Your task to perform on an android device: Go to location settings Image 0: 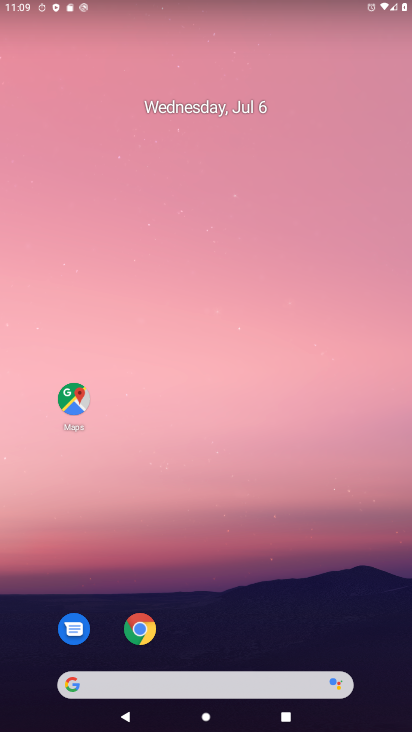
Step 0: drag from (230, 651) to (241, 111)
Your task to perform on an android device: Go to location settings Image 1: 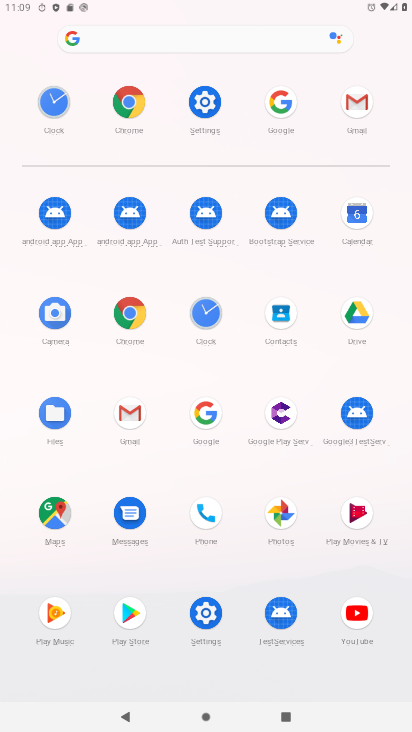
Step 1: click (212, 96)
Your task to perform on an android device: Go to location settings Image 2: 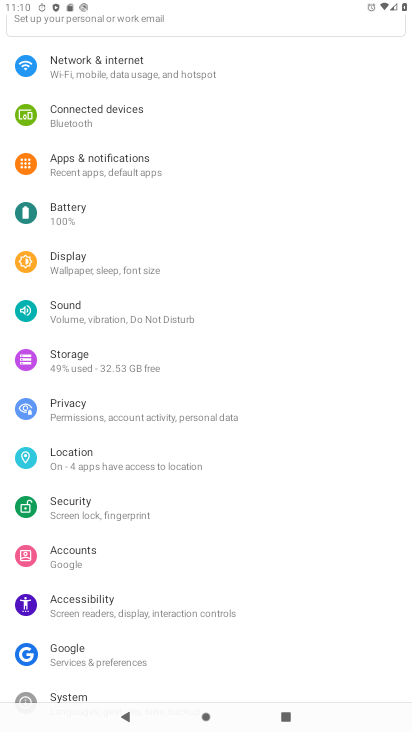
Step 2: click (95, 463)
Your task to perform on an android device: Go to location settings Image 3: 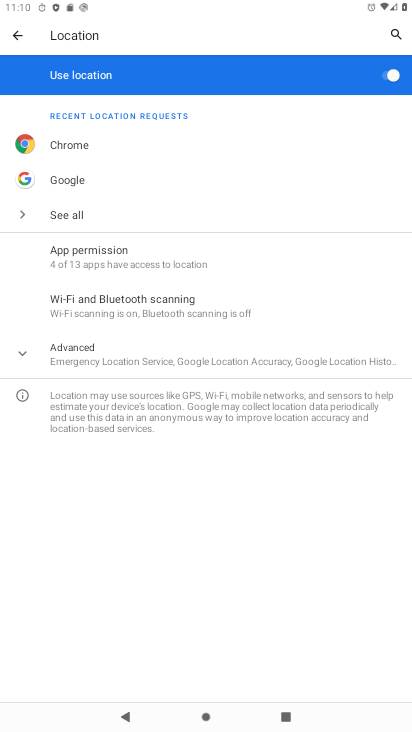
Step 3: task complete